Your task to perform on an android device: delete the emails in spam in the gmail app Image 0: 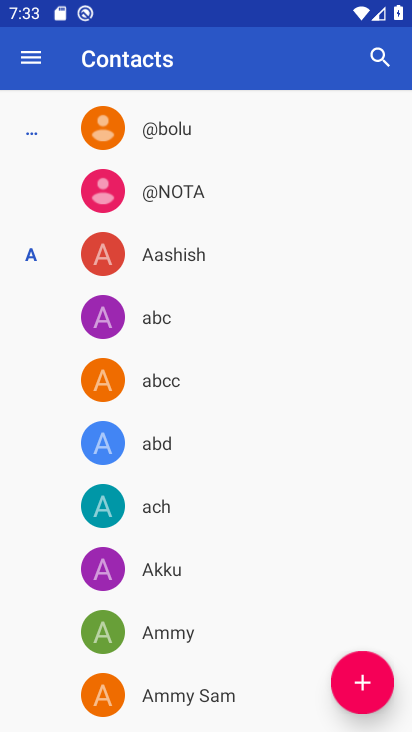
Step 0: press home button
Your task to perform on an android device: delete the emails in spam in the gmail app Image 1: 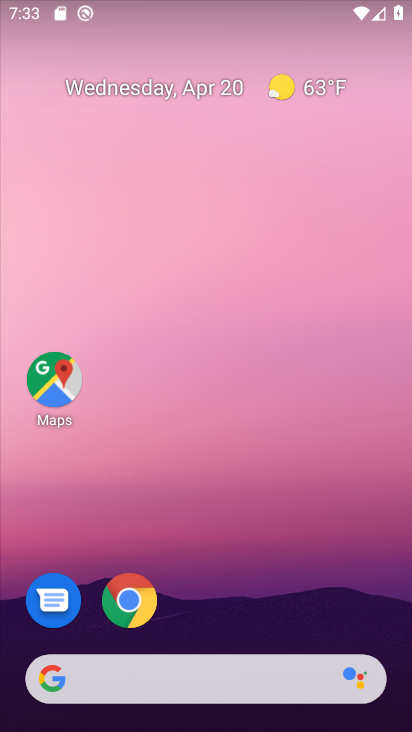
Step 1: drag from (245, 617) to (256, 29)
Your task to perform on an android device: delete the emails in spam in the gmail app Image 2: 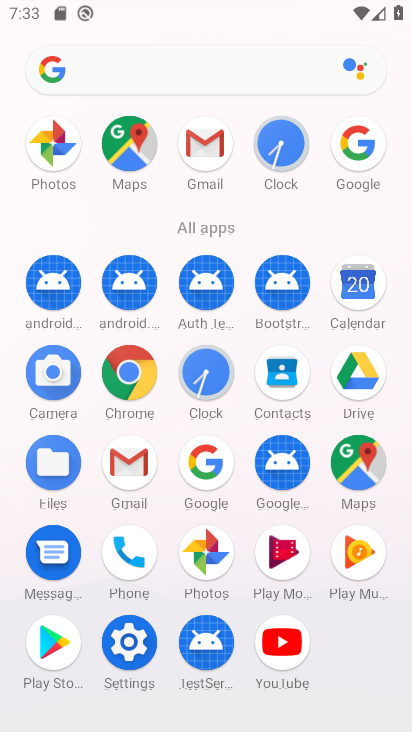
Step 2: click (201, 152)
Your task to perform on an android device: delete the emails in spam in the gmail app Image 3: 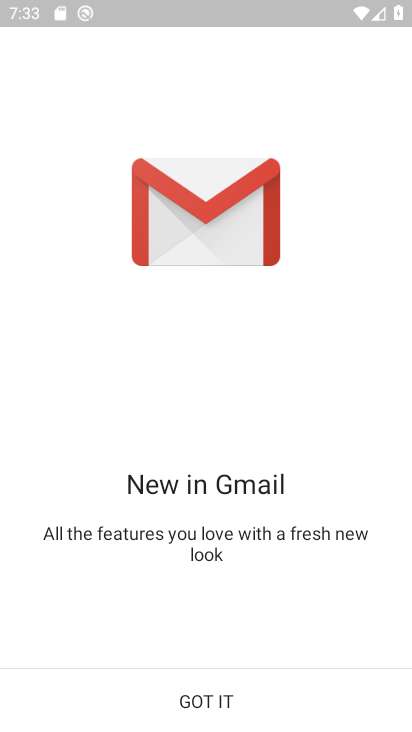
Step 3: click (211, 700)
Your task to perform on an android device: delete the emails in spam in the gmail app Image 4: 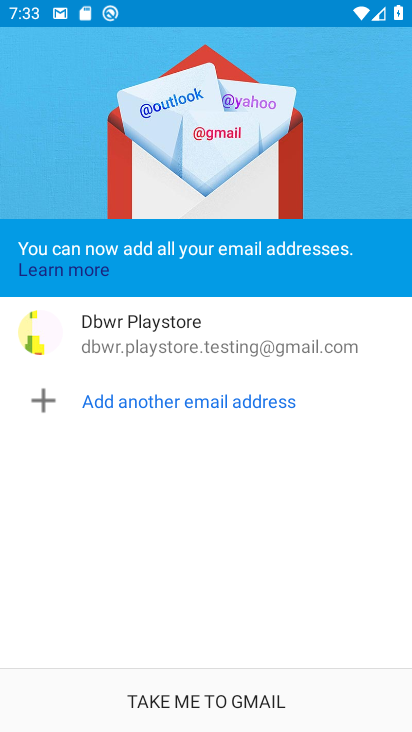
Step 4: click (223, 694)
Your task to perform on an android device: delete the emails in spam in the gmail app Image 5: 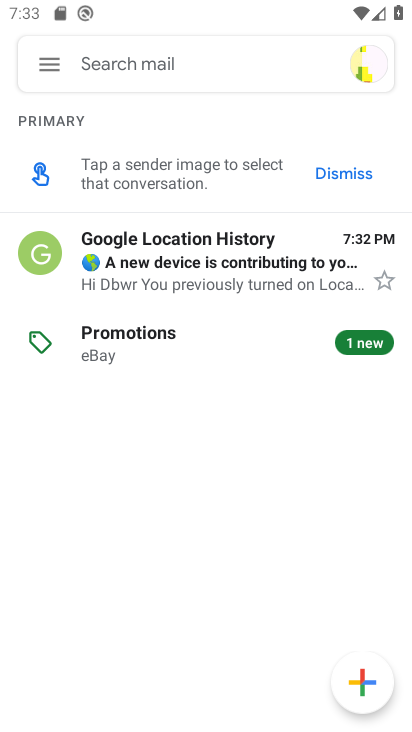
Step 5: click (48, 64)
Your task to perform on an android device: delete the emails in spam in the gmail app Image 6: 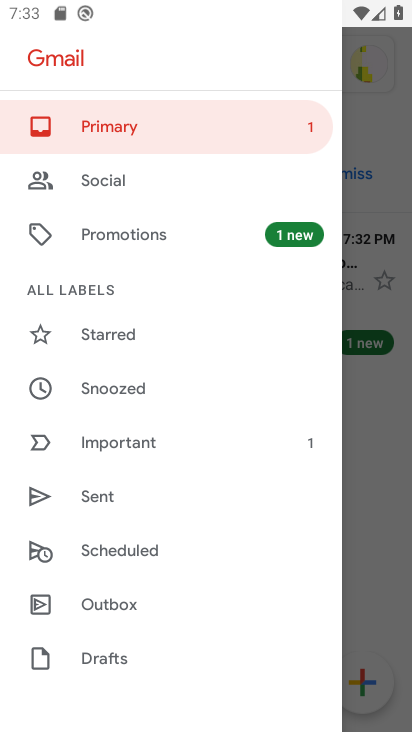
Step 6: drag from (171, 644) to (180, 189)
Your task to perform on an android device: delete the emails in spam in the gmail app Image 7: 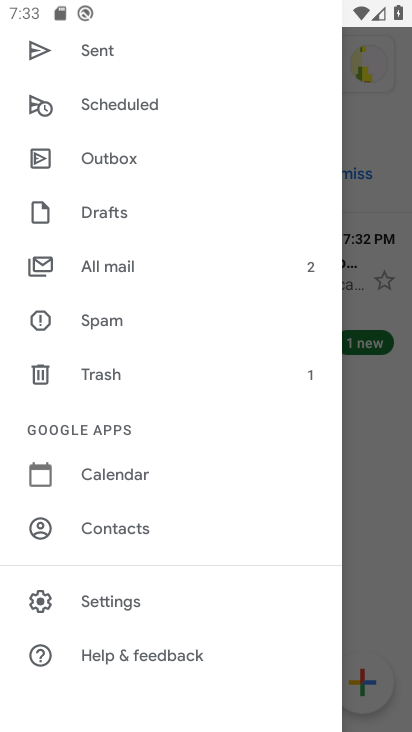
Step 7: click (148, 320)
Your task to perform on an android device: delete the emails in spam in the gmail app Image 8: 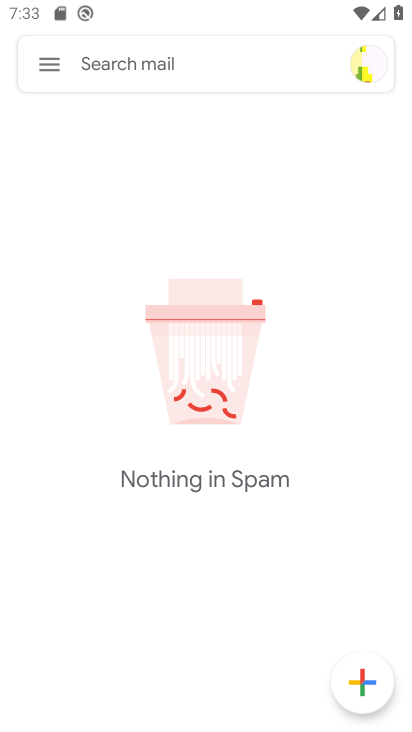
Step 8: task complete